Your task to perform on an android device: Open Chrome and go to the settings page Image 0: 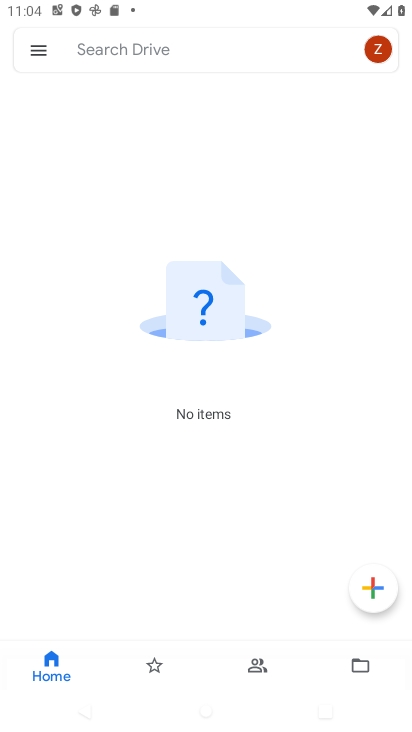
Step 0: press home button
Your task to perform on an android device: Open Chrome and go to the settings page Image 1: 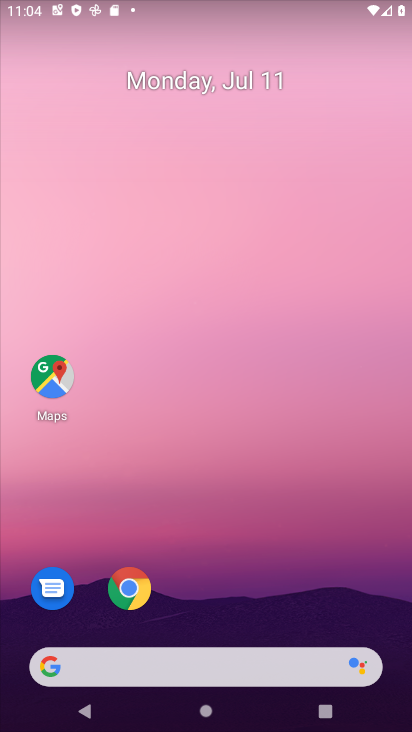
Step 1: click (136, 586)
Your task to perform on an android device: Open Chrome and go to the settings page Image 2: 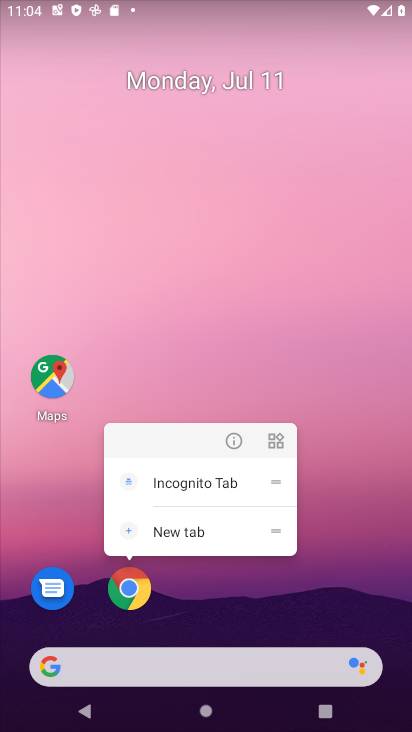
Step 2: click (138, 585)
Your task to perform on an android device: Open Chrome and go to the settings page Image 3: 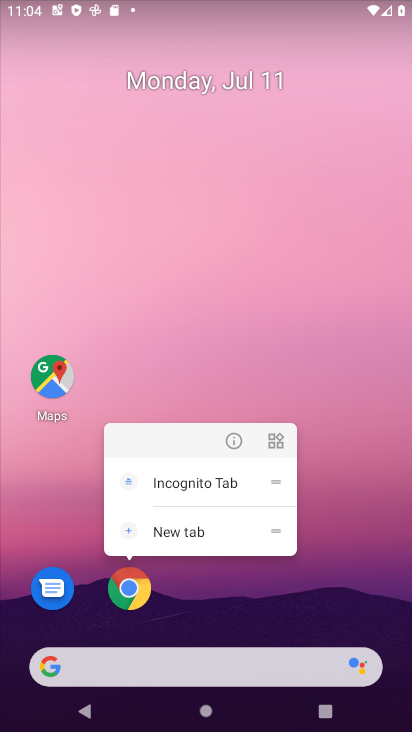
Step 3: click (138, 585)
Your task to perform on an android device: Open Chrome and go to the settings page Image 4: 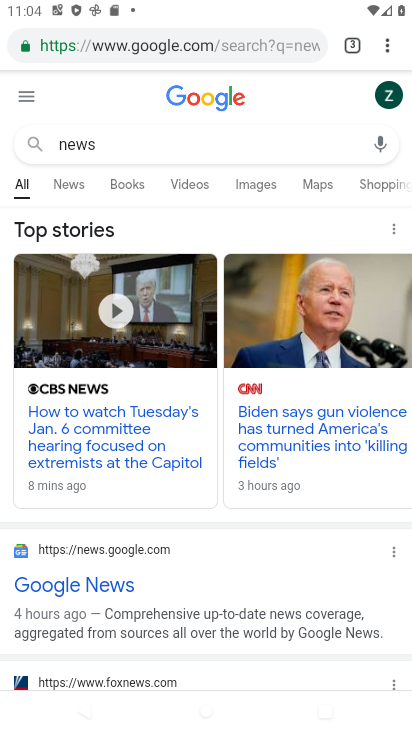
Step 4: click (386, 43)
Your task to perform on an android device: Open Chrome and go to the settings page Image 5: 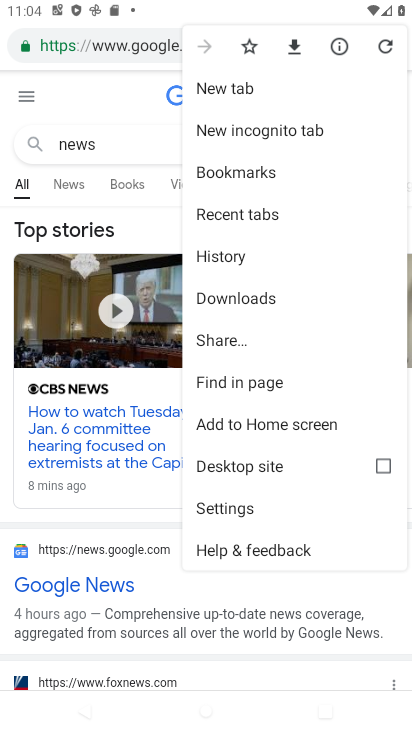
Step 5: click (239, 500)
Your task to perform on an android device: Open Chrome and go to the settings page Image 6: 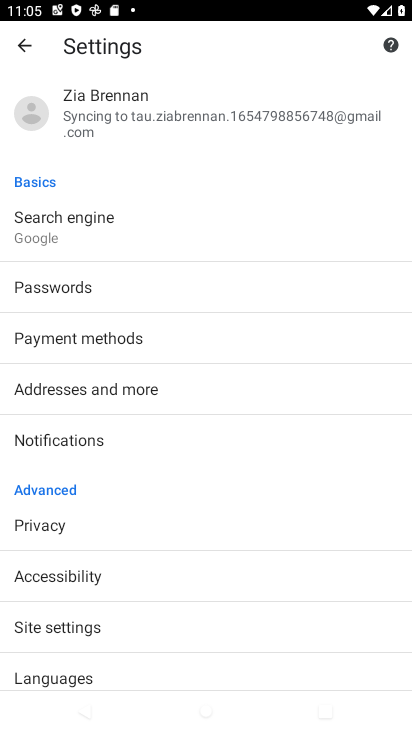
Step 6: task complete